Your task to perform on an android device: Show me productivity apps on the Play Store Image 0: 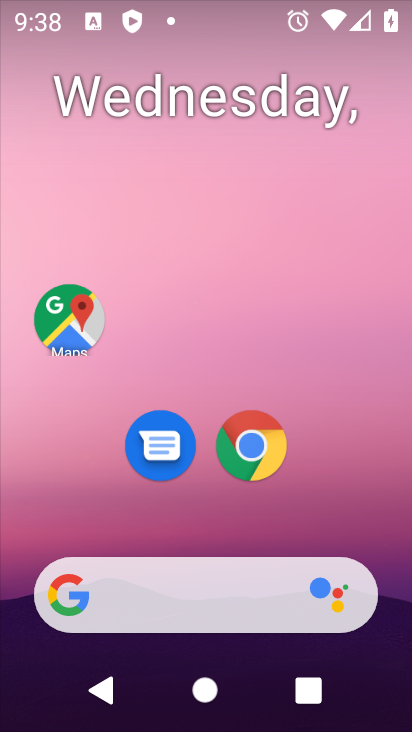
Step 0: drag from (359, 466) to (343, 2)
Your task to perform on an android device: Show me productivity apps on the Play Store Image 1: 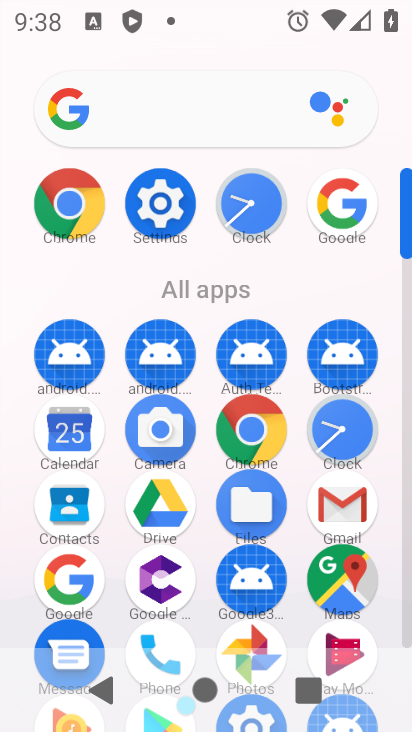
Step 1: drag from (384, 419) to (392, 194)
Your task to perform on an android device: Show me productivity apps on the Play Store Image 2: 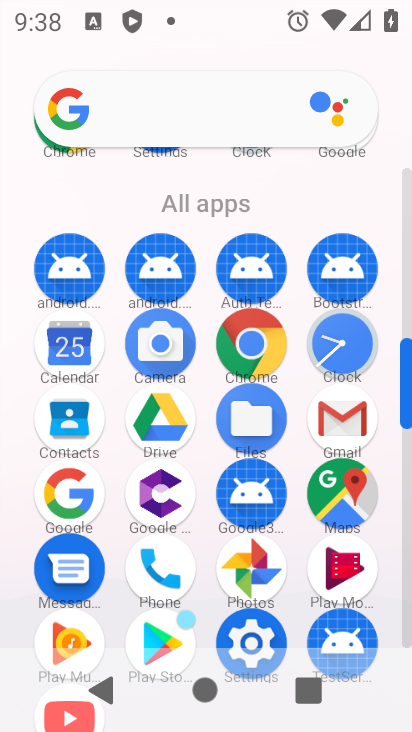
Step 2: click (168, 638)
Your task to perform on an android device: Show me productivity apps on the Play Store Image 3: 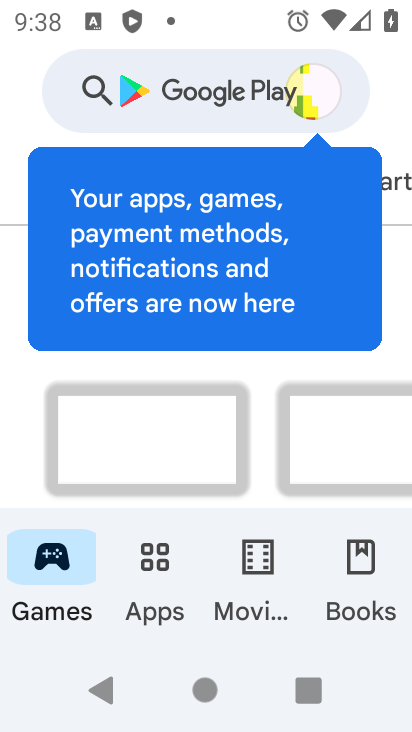
Step 3: click (166, 95)
Your task to perform on an android device: Show me productivity apps on the Play Store Image 4: 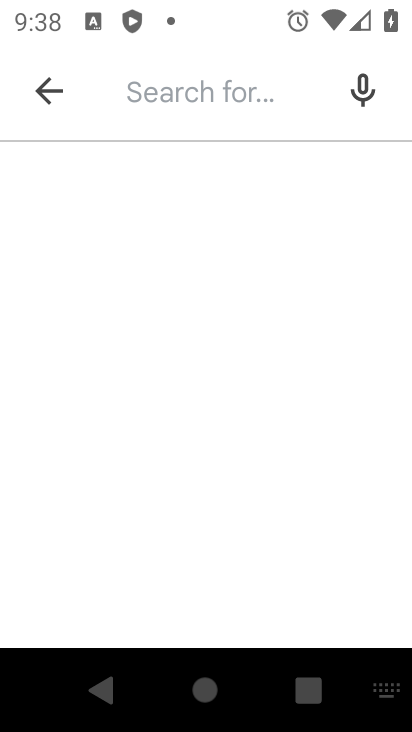
Step 4: type "productivity apps"
Your task to perform on an android device: Show me productivity apps on the Play Store Image 5: 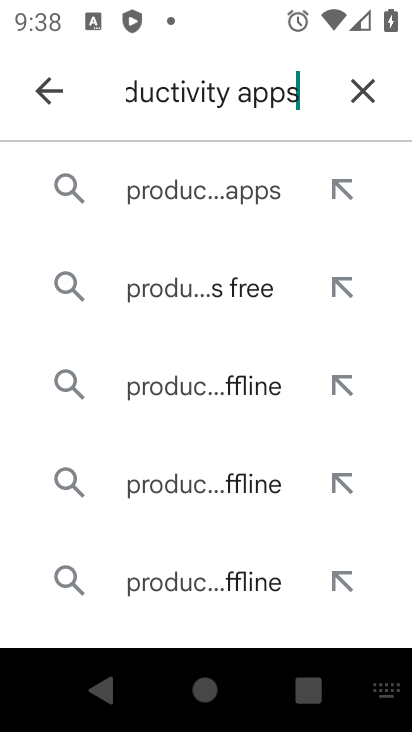
Step 5: click (199, 199)
Your task to perform on an android device: Show me productivity apps on the Play Store Image 6: 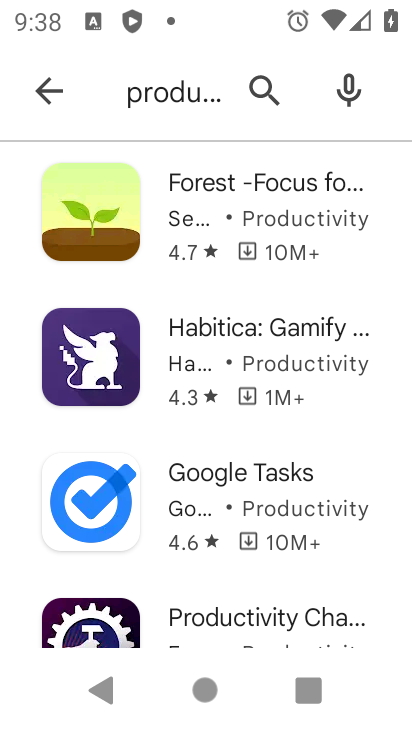
Step 6: task complete